Your task to perform on an android device: turn off smart reply in the gmail app Image 0: 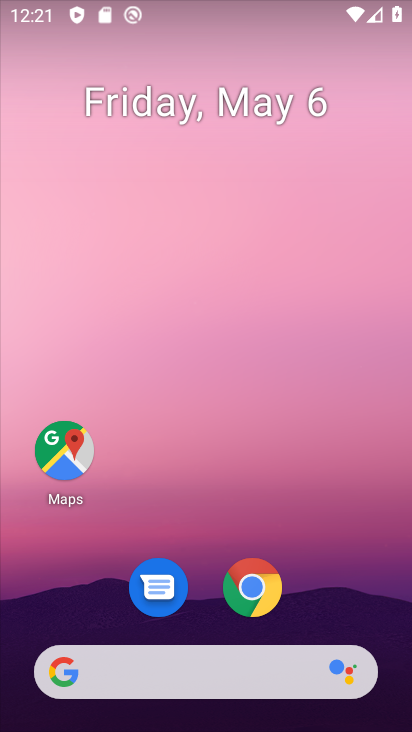
Step 0: drag from (20, 605) to (203, 201)
Your task to perform on an android device: turn off smart reply in the gmail app Image 1: 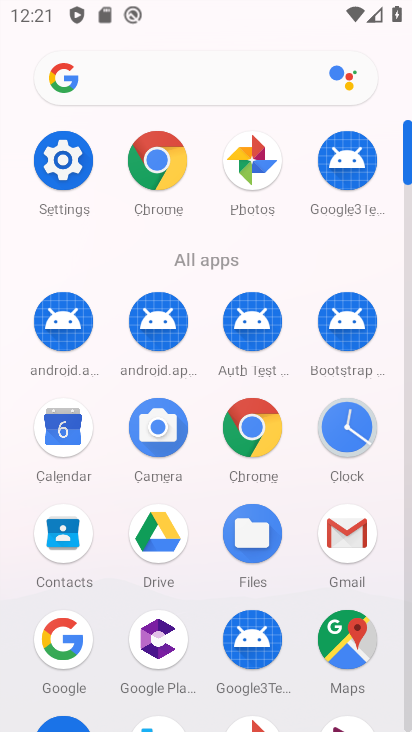
Step 1: click (362, 552)
Your task to perform on an android device: turn off smart reply in the gmail app Image 2: 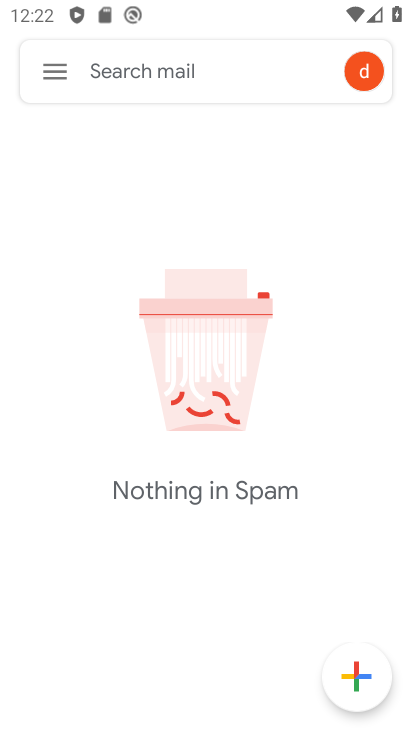
Step 2: click (36, 81)
Your task to perform on an android device: turn off smart reply in the gmail app Image 3: 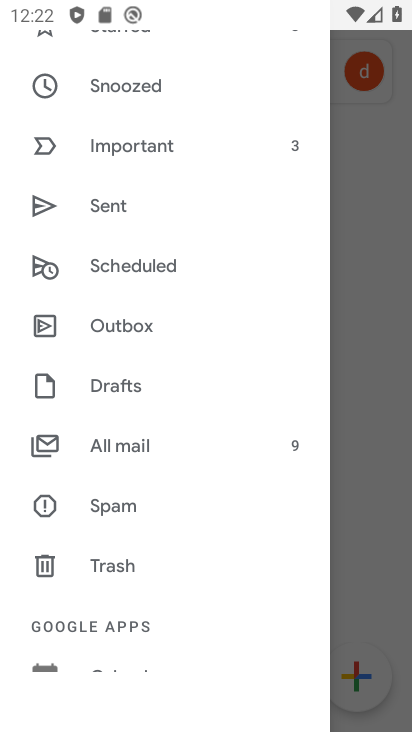
Step 3: drag from (96, 615) to (190, 290)
Your task to perform on an android device: turn off smart reply in the gmail app Image 4: 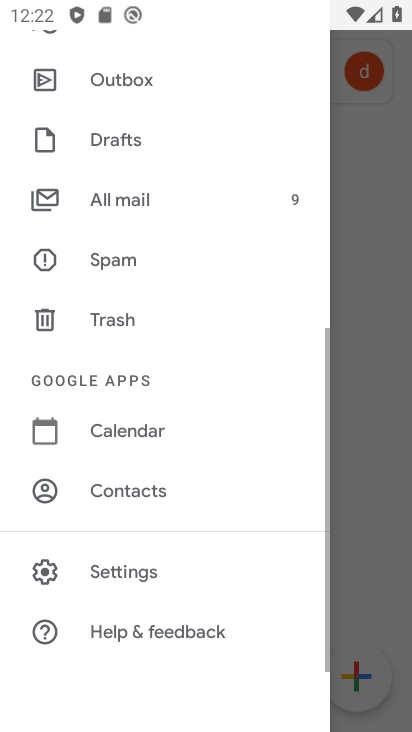
Step 4: click (79, 577)
Your task to perform on an android device: turn off smart reply in the gmail app Image 5: 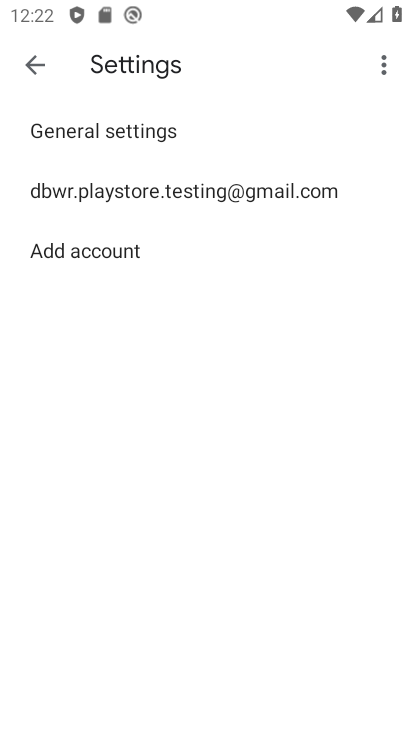
Step 5: click (172, 193)
Your task to perform on an android device: turn off smart reply in the gmail app Image 6: 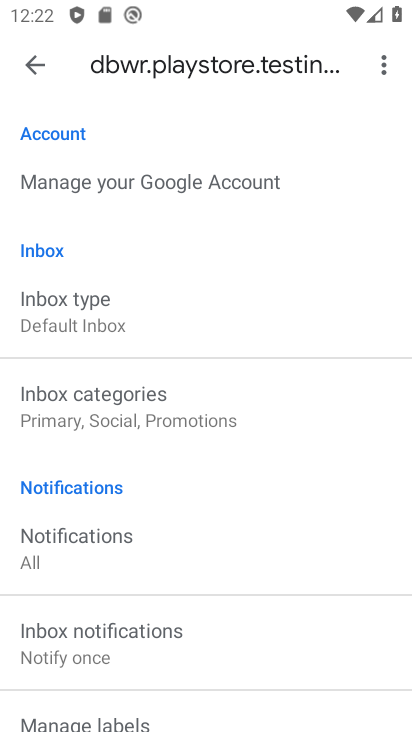
Step 6: drag from (140, 617) to (211, 223)
Your task to perform on an android device: turn off smart reply in the gmail app Image 7: 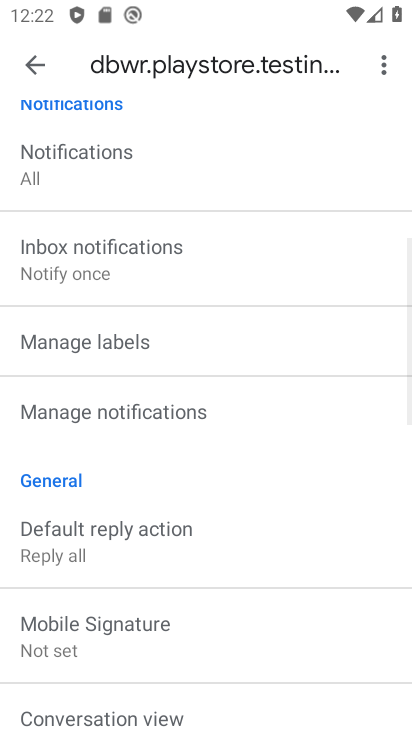
Step 7: drag from (105, 628) to (194, 263)
Your task to perform on an android device: turn off smart reply in the gmail app Image 8: 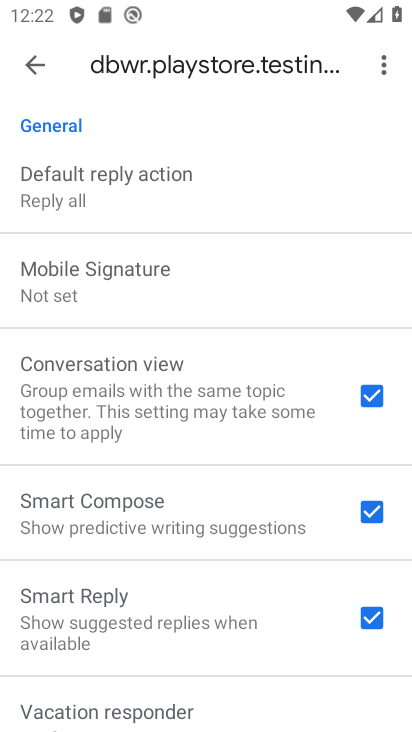
Step 8: drag from (118, 666) to (202, 350)
Your task to perform on an android device: turn off smart reply in the gmail app Image 9: 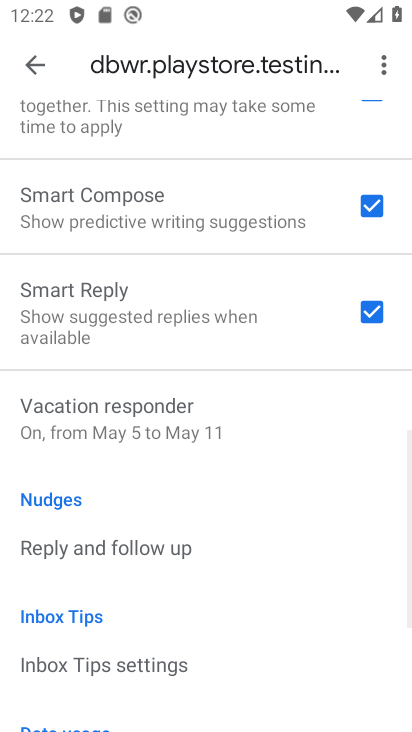
Step 9: click (370, 302)
Your task to perform on an android device: turn off smart reply in the gmail app Image 10: 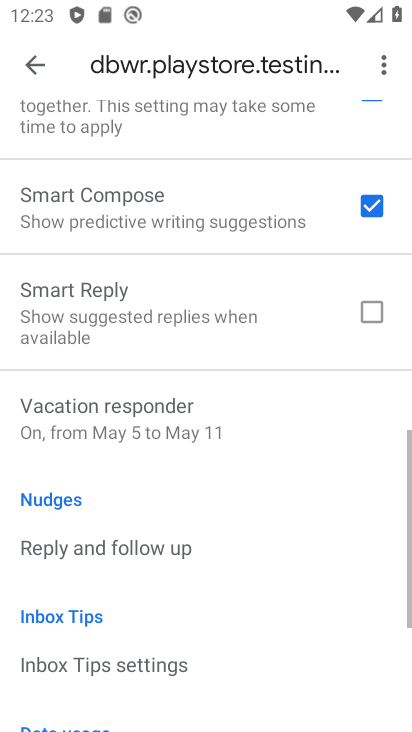
Step 10: task complete